Your task to perform on an android device: set the stopwatch Image 0: 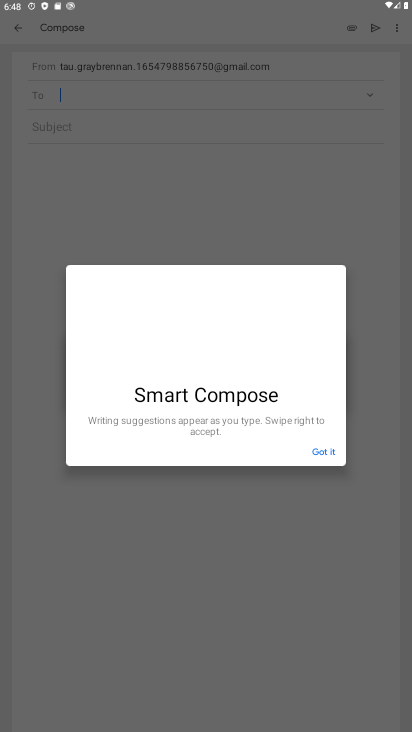
Step 0: press home button
Your task to perform on an android device: set the stopwatch Image 1: 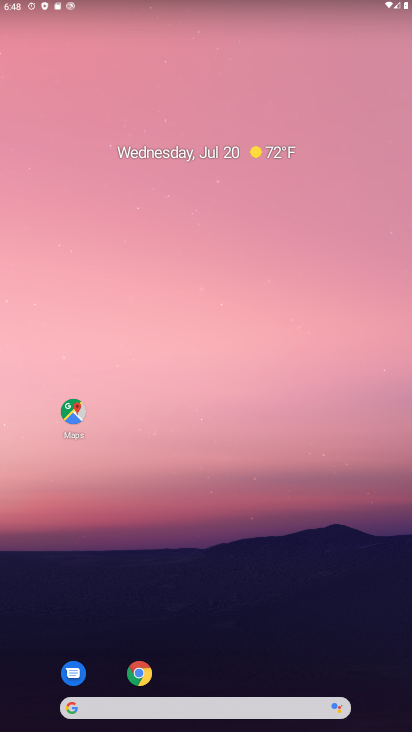
Step 1: drag from (360, 515) to (267, 32)
Your task to perform on an android device: set the stopwatch Image 2: 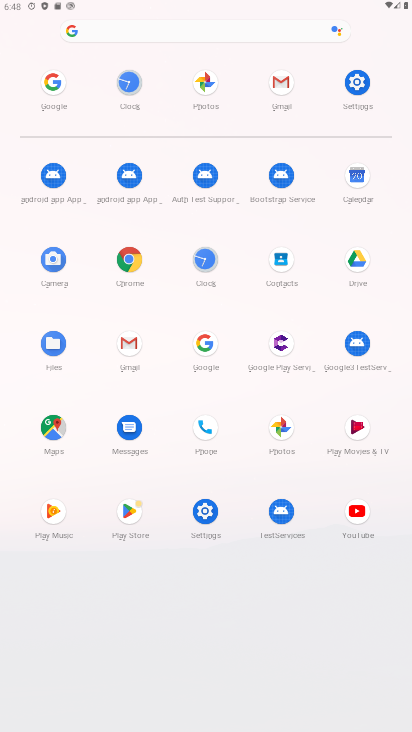
Step 2: drag from (366, 606) to (260, 127)
Your task to perform on an android device: set the stopwatch Image 3: 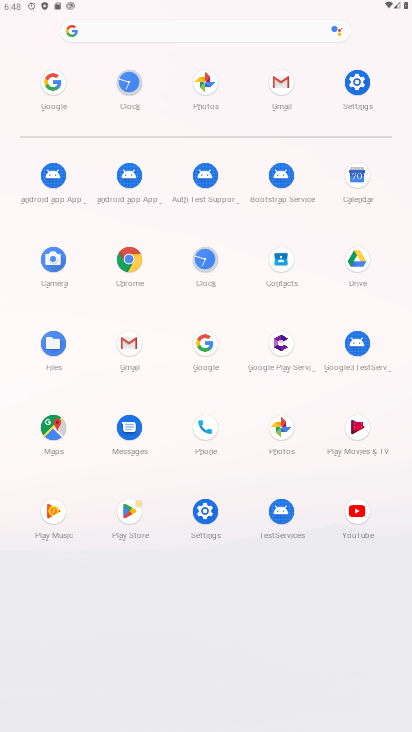
Step 3: click (194, 271)
Your task to perform on an android device: set the stopwatch Image 4: 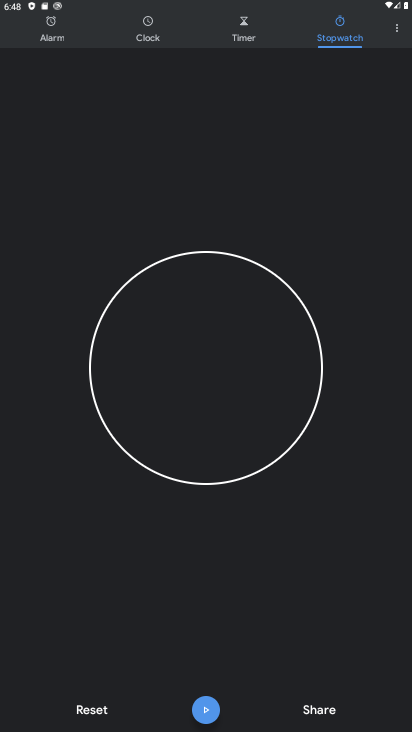
Step 4: click (206, 715)
Your task to perform on an android device: set the stopwatch Image 5: 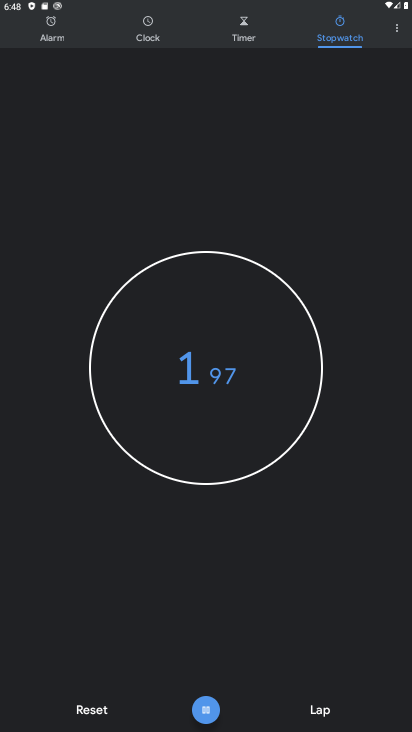
Step 5: click (206, 715)
Your task to perform on an android device: set the stopwatch Image 6: 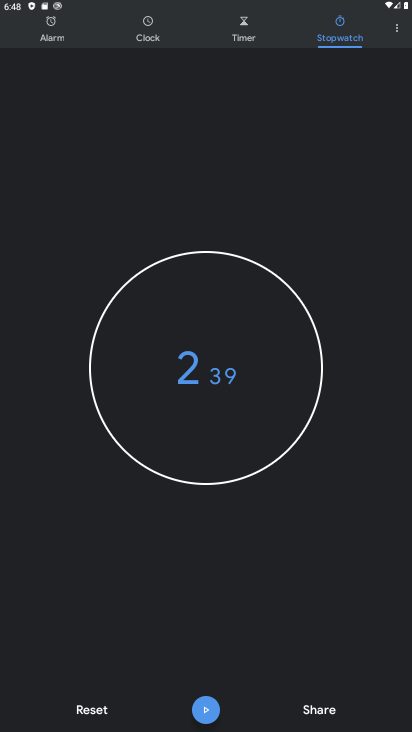
Step 6: task complete